Your task to perform on an android device: Open settings Image 0: 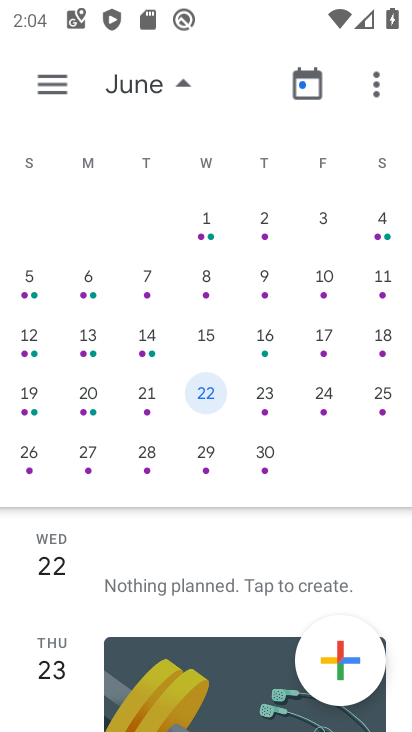
Step 0: press home button
Your task to perform on an android device: Open settings Image 1: 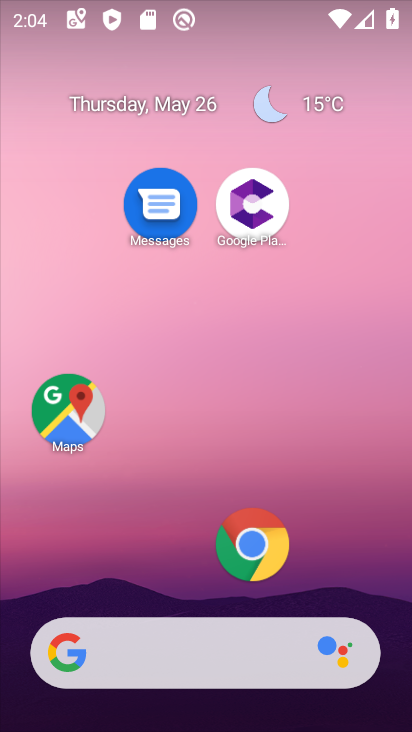
Step 1: drag from (178, 582) to (184, 8)
Your task to perform on an android device: Open settings Image 2: 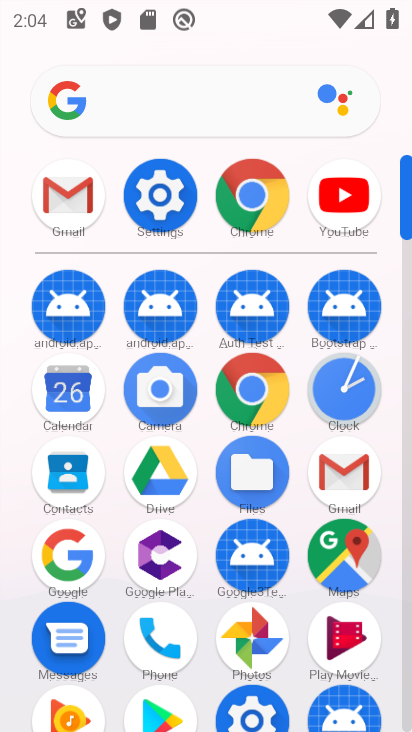
Step 2: click (158, 171)
Your task to perform on an android device: Open settings Image 3: 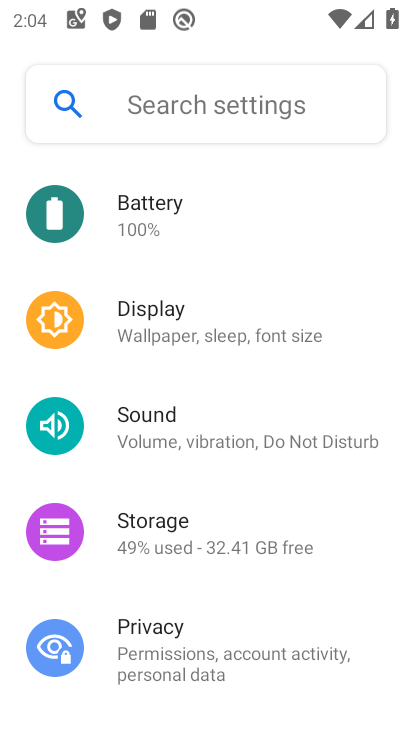
Step 3: task complete